Your task to perform on an android device: Open the map Image 0: 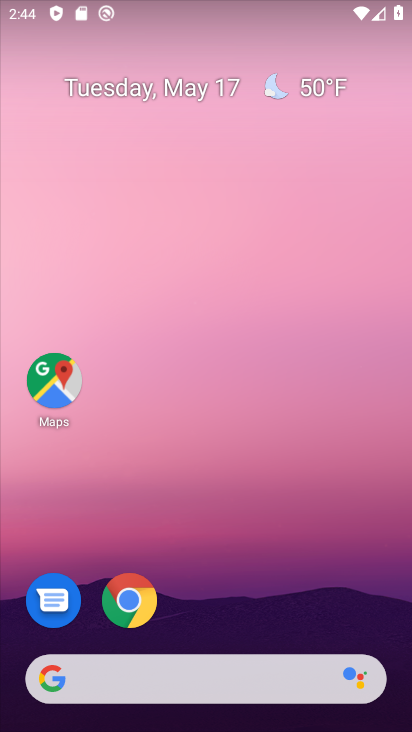
Step 0: click (57, 393)
Your task to perform on an android device: Open the map Image 1: 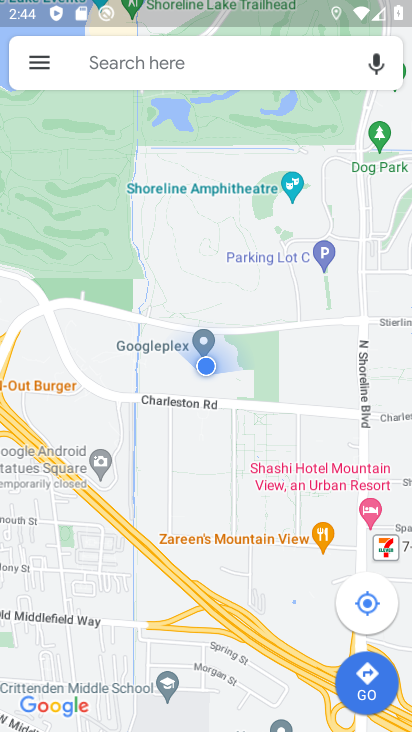
Step 1: task complete